Your task to perform on an android device: set an alarm Image 0: 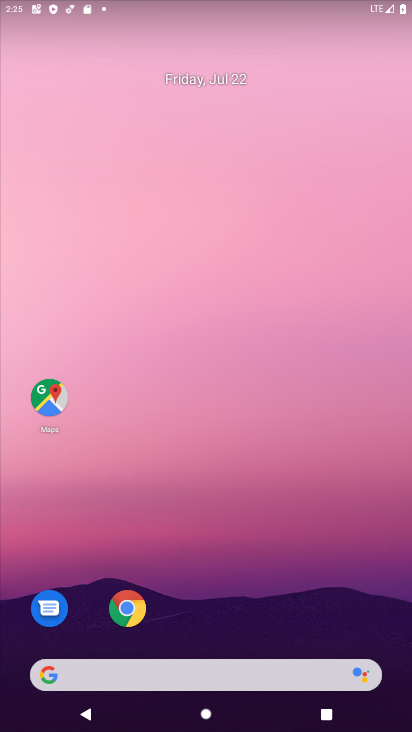
Step 0: drag from (398, 684) to (338, 2)
Your task to perform on an android device: set an alarm Image 1: 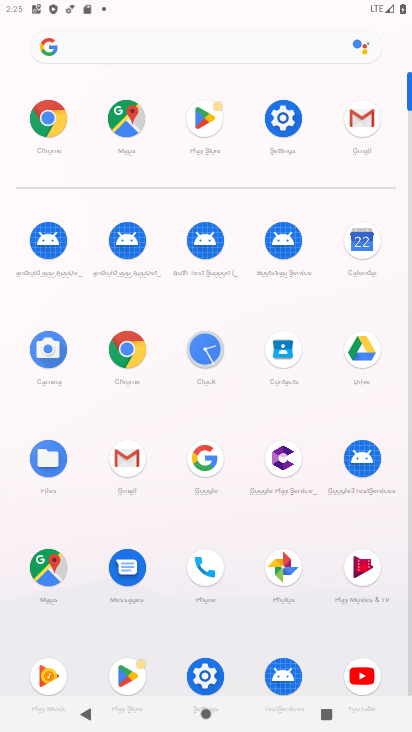
Step 1: click (208, 337)
Your task to perform on an android device: set an alarm Image 2: 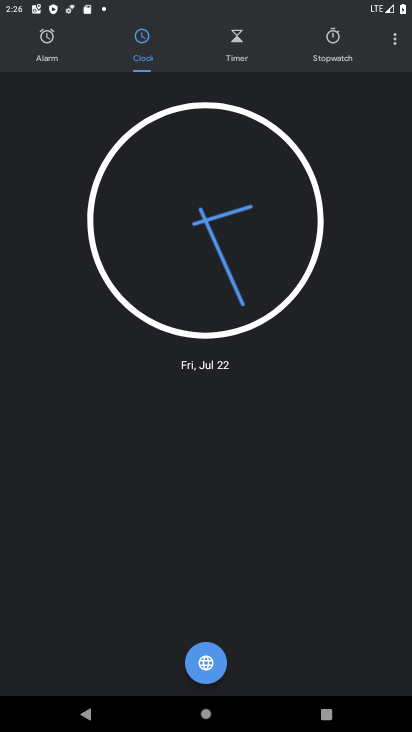
Step 2: click (50, 45)
Your task to perform on an android device: set an alarm Image 3: 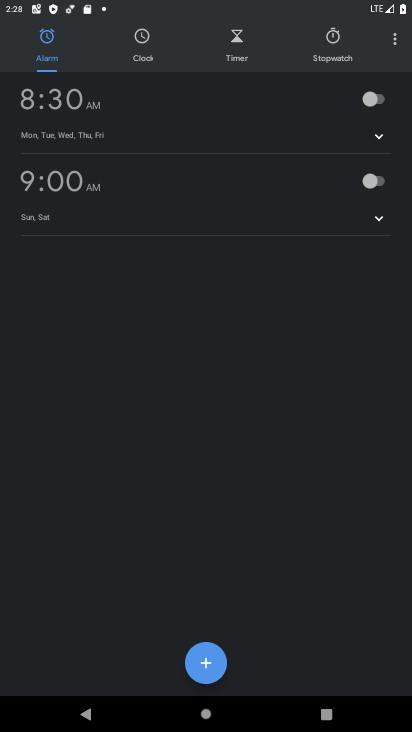
Step 3: click (378, 99)
Your task to perform on an android device: set an alarm Image 4: 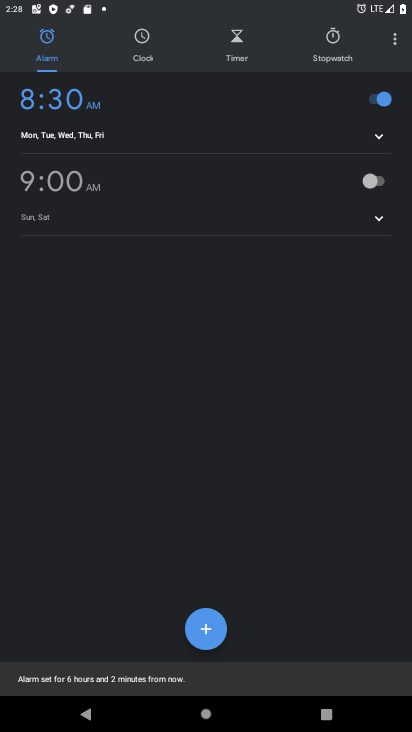
Step 4: task complete